Your task to perform on an android device: Search for Italian restaurants on Maps Image 0: 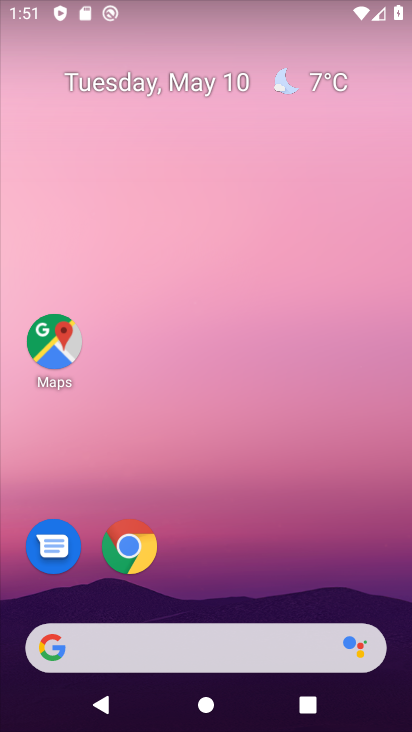
Step 0: drag from (350, 564) to (285, 90)
Your task to perform on an android device: Search for Italian restaurants on Maps Image 1: 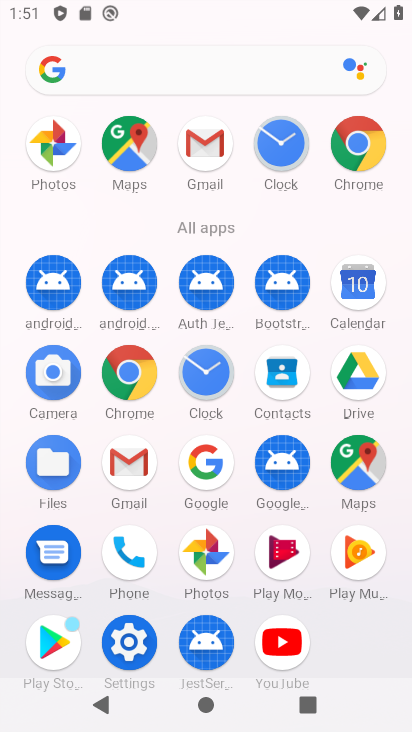
Step 1: click (127, 138)
Your task to perform on an android device: Search for Italian restaurants on Maps Image 2: 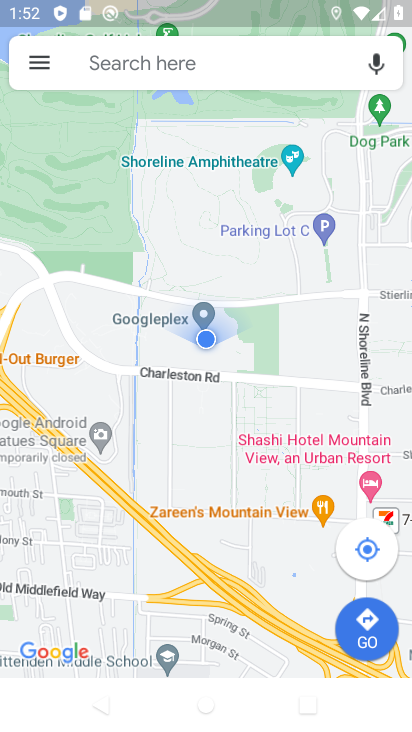
Step 2: click (138, 78)
Your task to perform on an android device: Search for Italian restaurants on Maps Image 3: 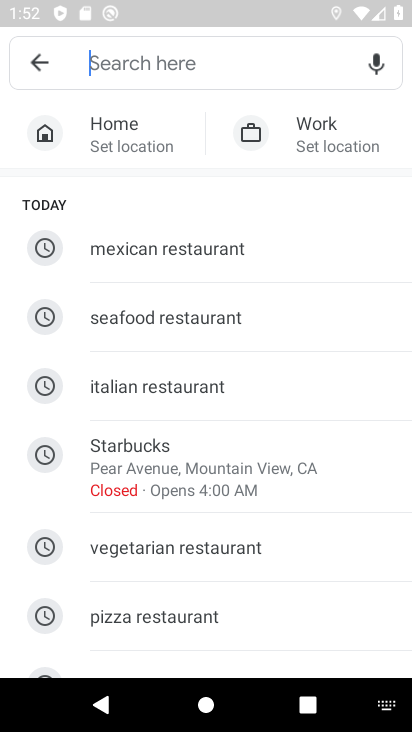
Step 3: click (76, 400)
Your task to perform on an android device: Search for Italian restaurants on Maps Image 4: 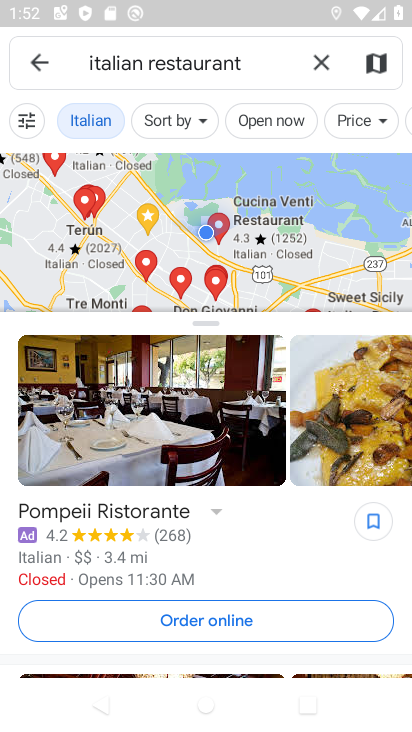
Step 4: task complete